Your task to perform on an android device: toggle airplane mode Image 0: 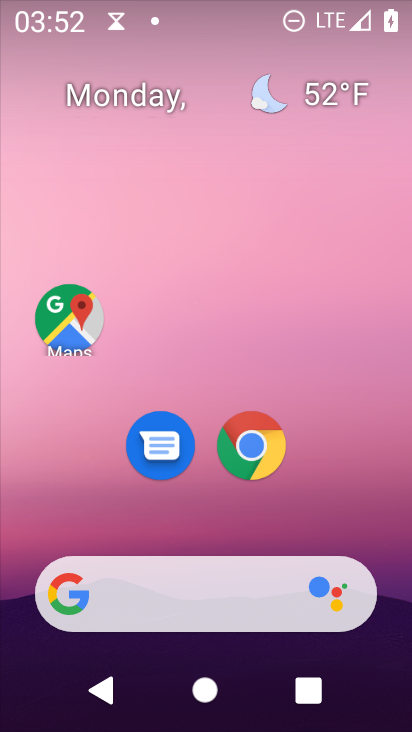
Step 0: drag from (214, 542) to (252, 7)
Your task to perform on an android device: toggle airplane mode Image 1: 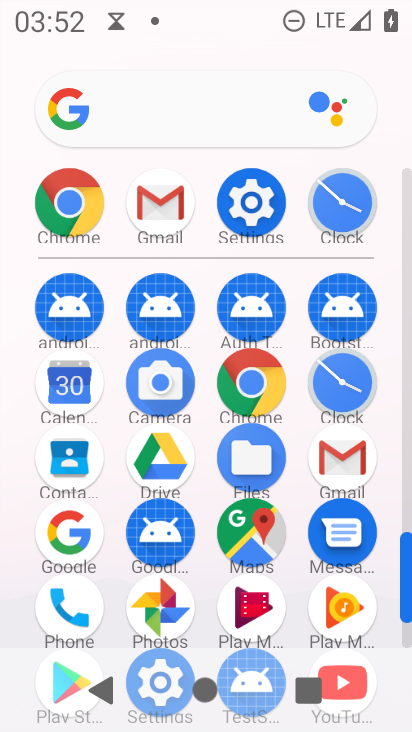
Step 1: click (252, 198)
Your task to perform on an android device: toggle airplane mode Image 2: 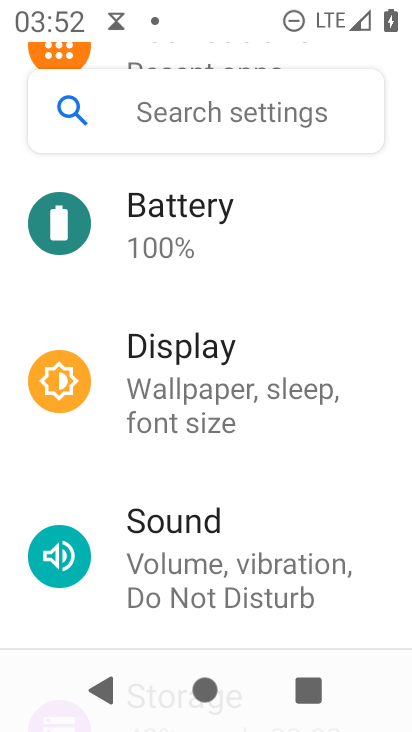
Step 2: drag from (223, 364) to (232, 484)
Your task to perform on an android device: toggle airplane mode Image 3: 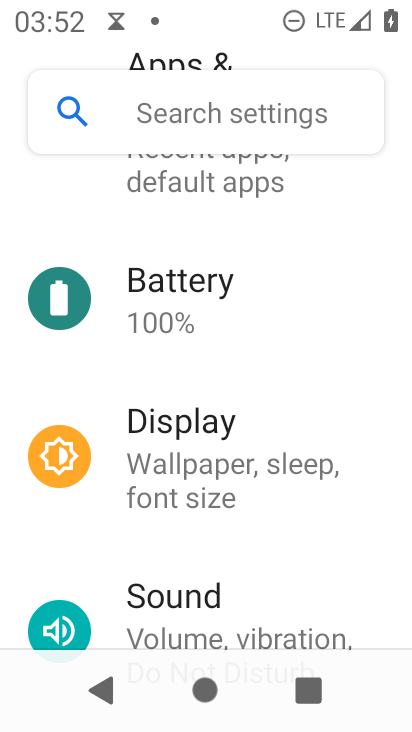
Step 3: drag from (246, 321) to (225, 579)
Your task to perform on an android device: toggle airplane mode Image 4: 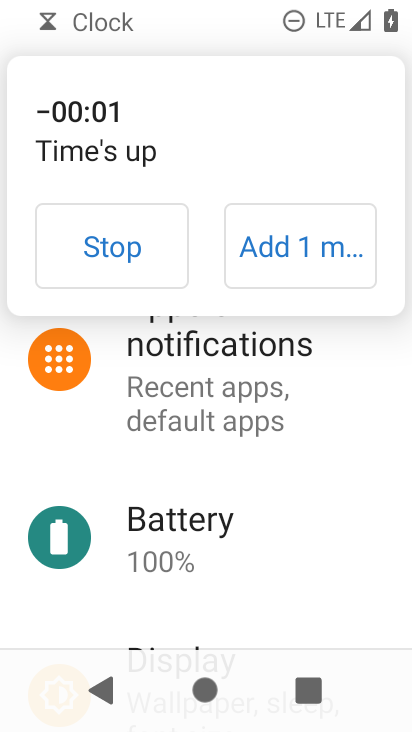
Step 4: drag from (263, 291) to (231, 550)
Your task to perform on an android device: toggle airplane mode Image 5: 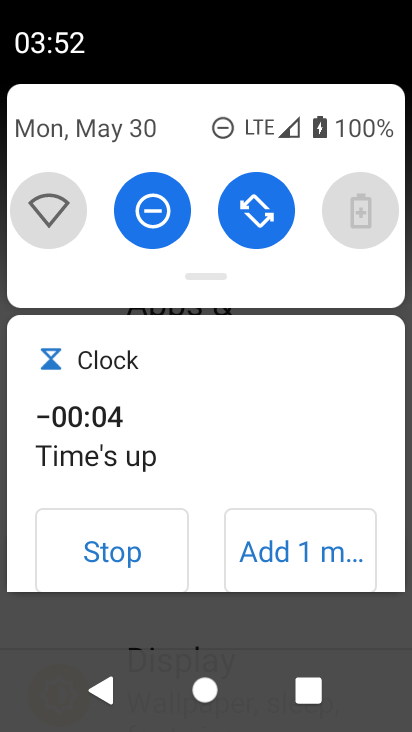
Step 5: drag from (198, 602) to (248, 37)
Your task to perform on an android device: toggle airplane mode Image 6: 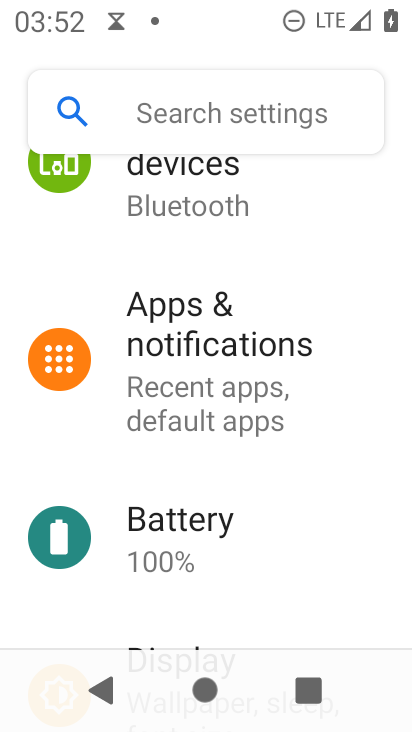
Step 6: drag from (221, 325) to (228, 645)
Your task to perform on an android device: toggle airplane mode Image 7: 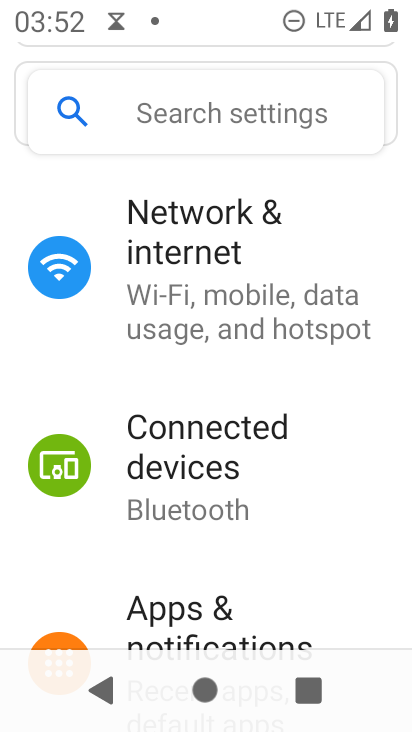
Step 7: click (201, 269)
Your task to perform on an android device: toggle airplane mode Image 8: 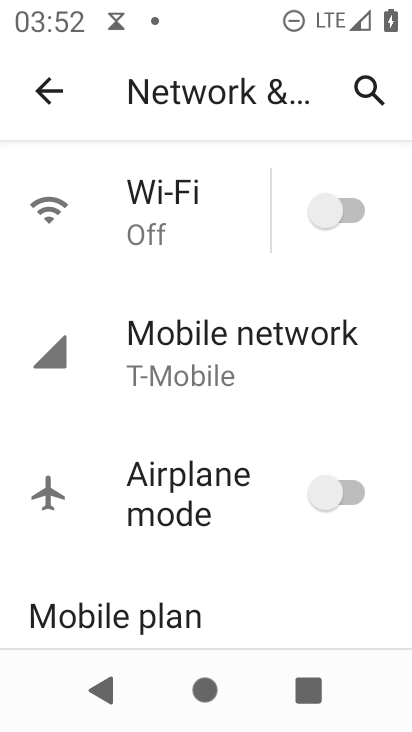
Step 8: click (372, 488)
Your task to perform on an android device: toggle airplane mode Image 9: 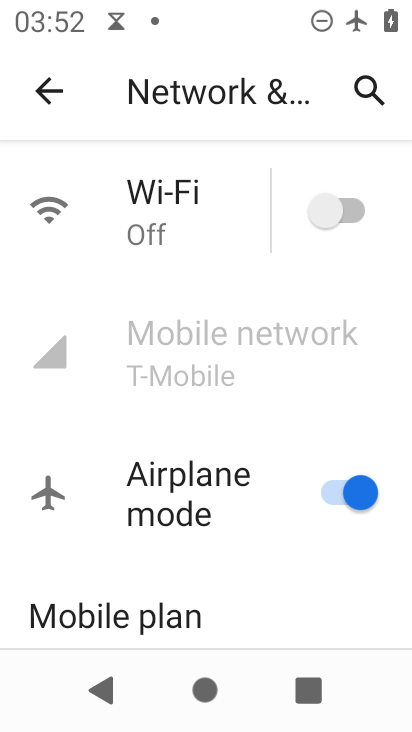
Step 9: task complete